Your task to perform on an android device: Go to sound settings Image 0: 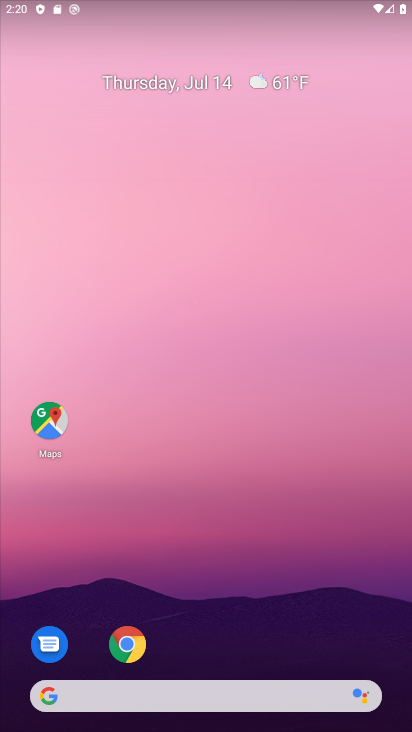
Step 0: drag from (343, 587) to (243, 6)
Your task to perform on an android device: Go to sound settings Image 1: 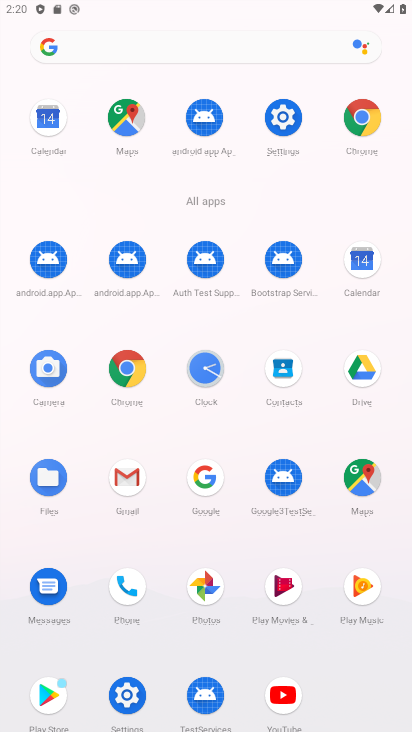
Step 1: click (271, 111)
Your task to perform on an android device: Go to sound settings Image 2: 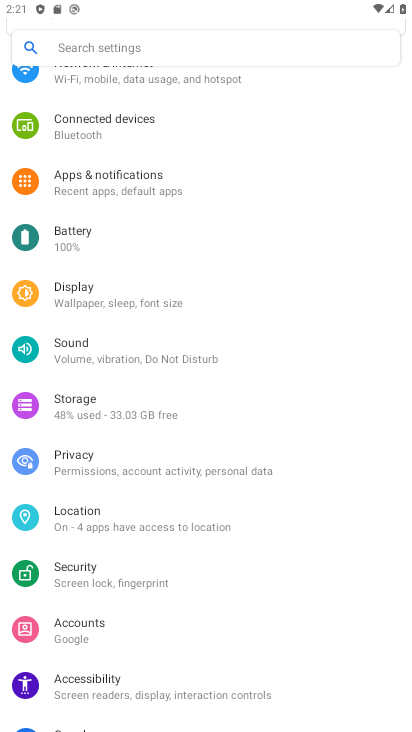
Step 2: click (128, 351)
Your task to perform on an android device: Go to sound settings Image 3: 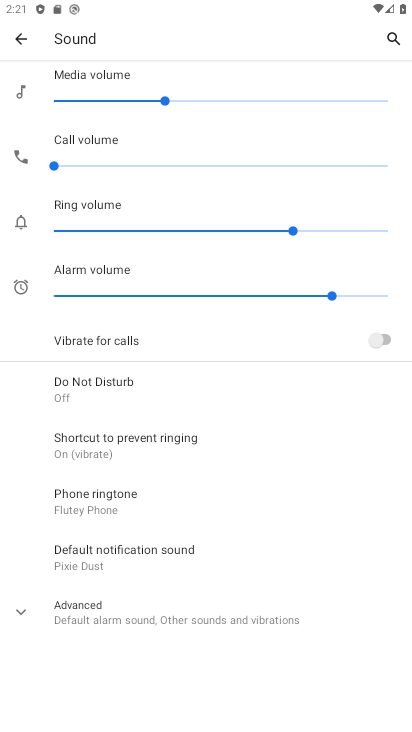
Step 3: task complete